Your task to perform on an android device: clear history in the chrome app Image 0: 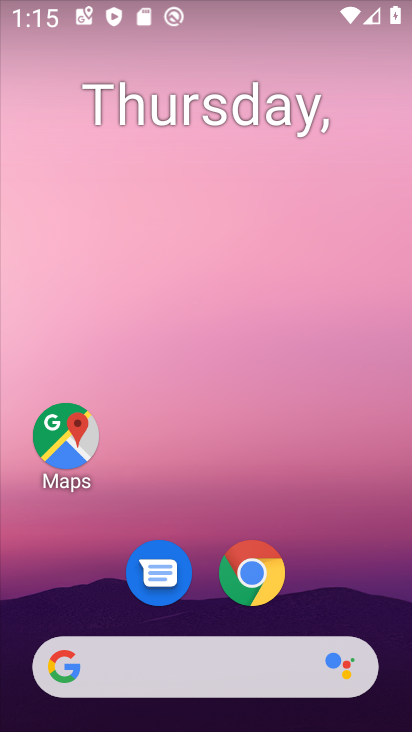
Step 0: drag from (354, 572) to (258, 55)
Your task to perform on an android device: clear history in the chrome app Image 1: 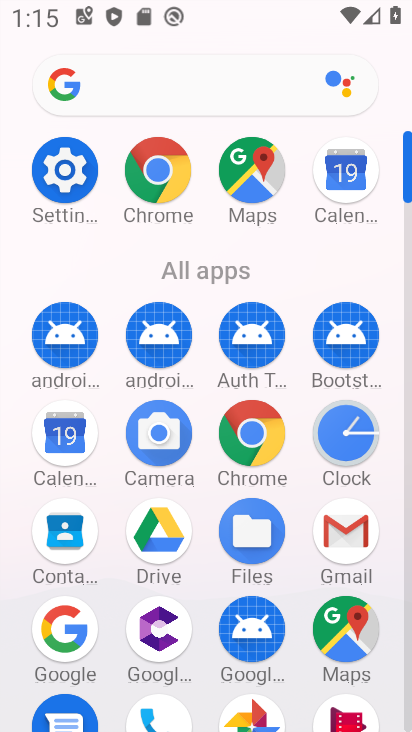
Step 1: click (250, 427)
Your task to perform on an android device: clear history in the chrome app Image 2: 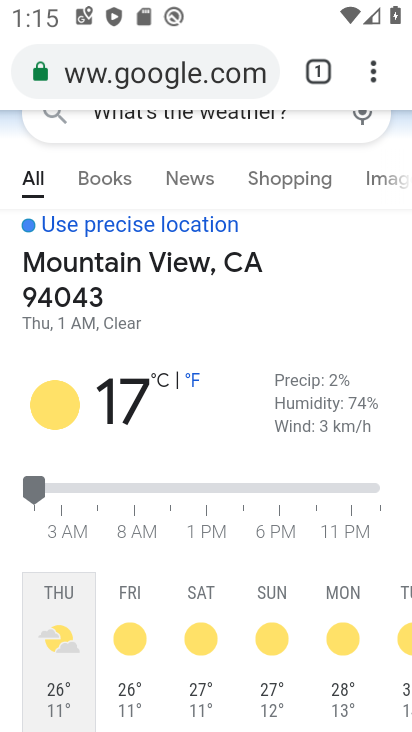
Step 2: drag from (380, 61) to (179, 391)
Your task to perform on an android device: clear history in the chrome app Image 3: 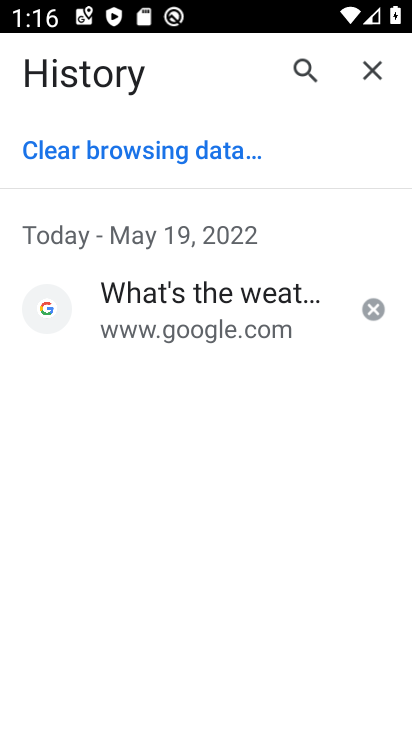
Step 3: click (107, 154)
Your task to perform on an android device: clear history in the chrome app Image 4: 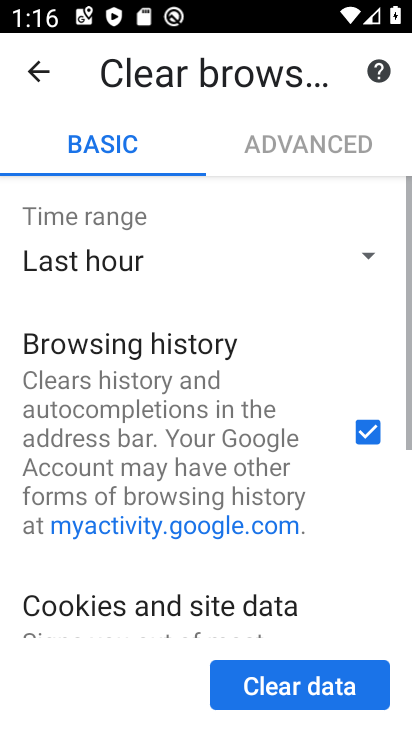
Step 4: click (288, 689)
Your task to perform on an android device: clear history in the chrome app Image 5: 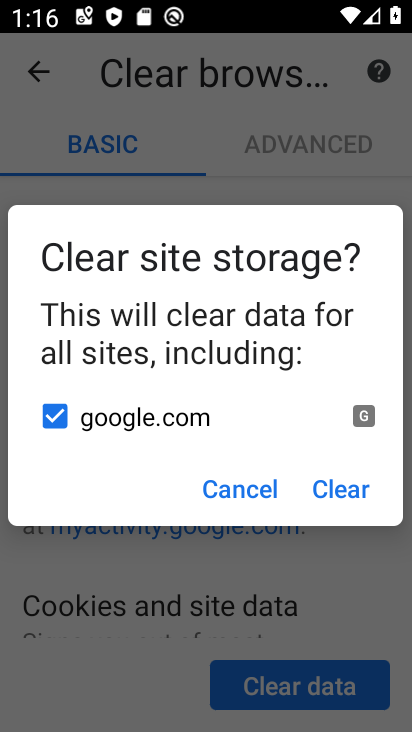
Step 5: click (332, 488)
Your task to perform on an android device: clear history in the chrome app Image 6: 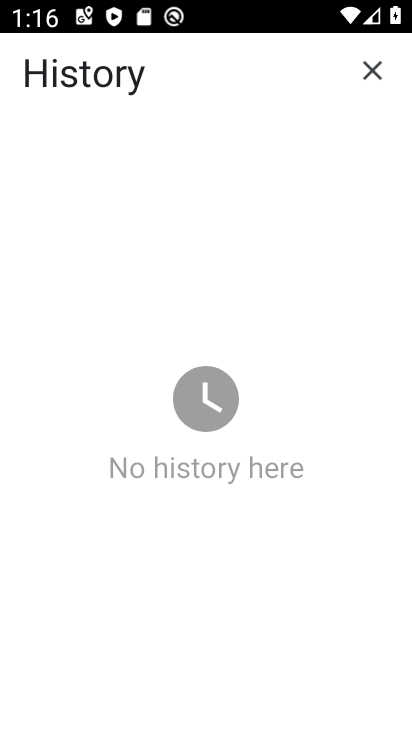
Step 6: task complete